Your task to perform on an android device: Open Maps and search for coffee Image 0: 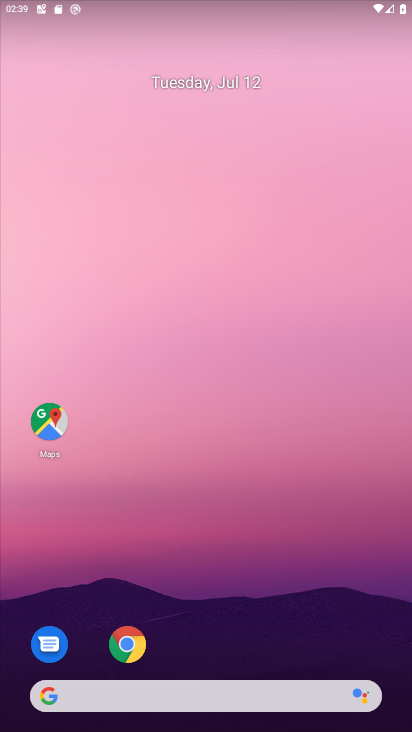
Step 0: drag from (207, 663) to (182, 62)
Your task to perform on an android device: Open Maps and search for coffee Image 1: 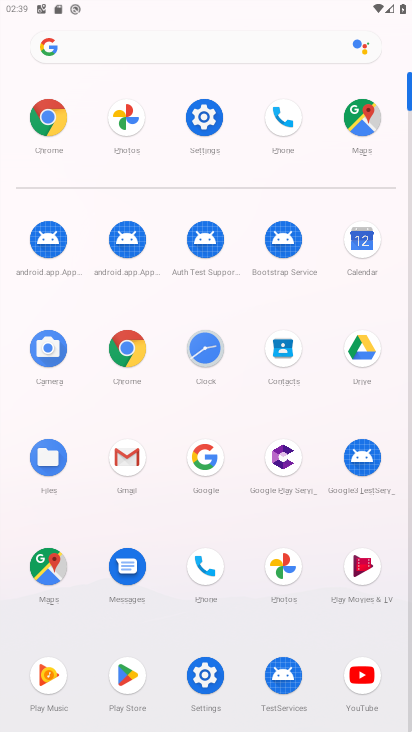
Step 1: click (44, 566)
Your task to perform on an android device: Open Maps and search for coffee Image 2: 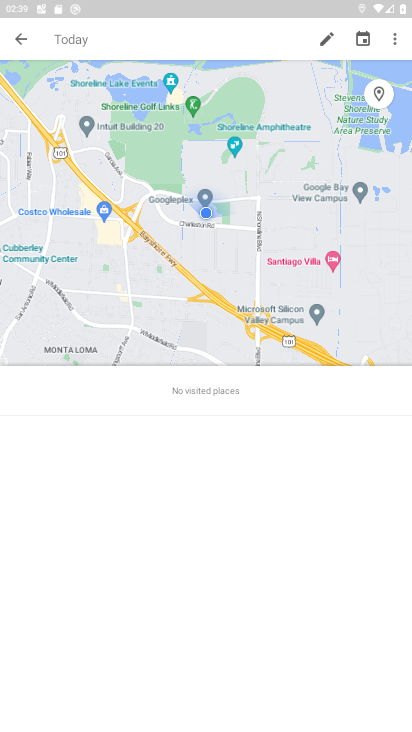
Step 2: click (23, 38)
Your task to perform on an android device: Open Maps and search for coffee Image 3: 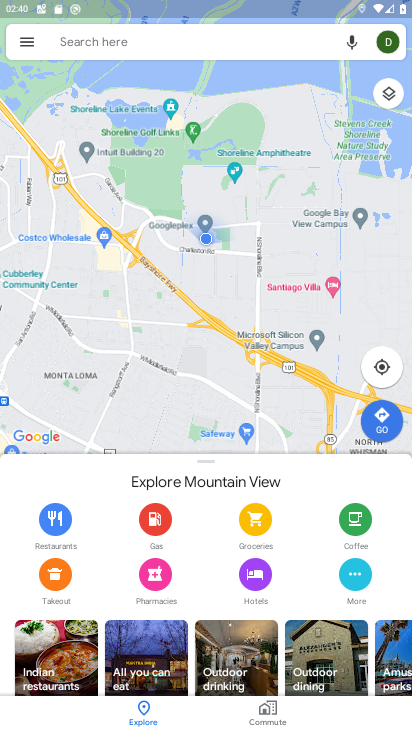
Step 3: click (104, 48)
Your task to perform on an android device: Open Maps and search for coffee Image 4: 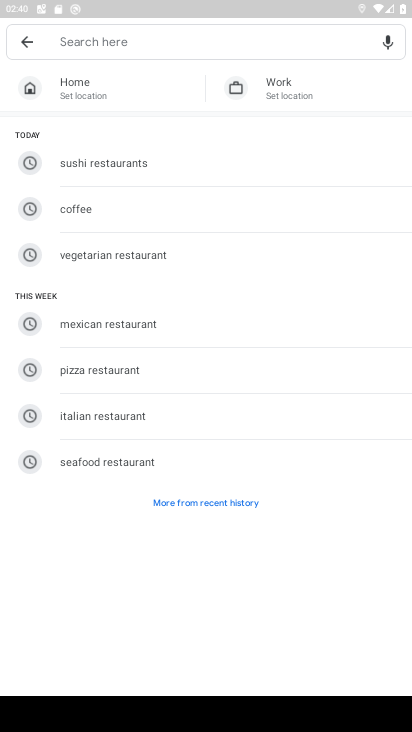
Step 4: click (78, 220)
Your task to perform on an android device: Open Maps and search for coffee Image 5: 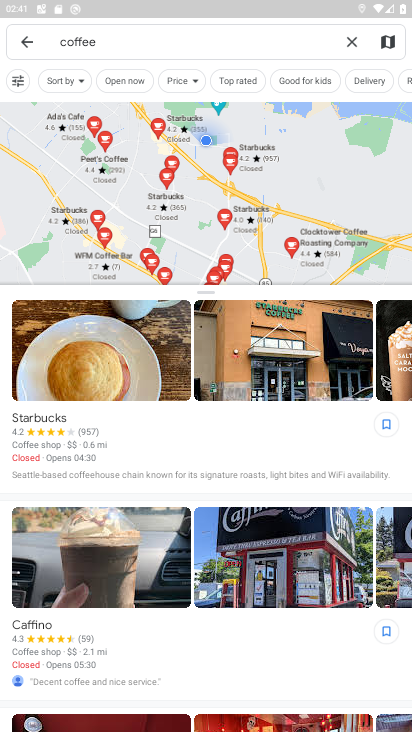
Step 5: task complete